Your task to perform on an android device: Open notification settings Image 0: 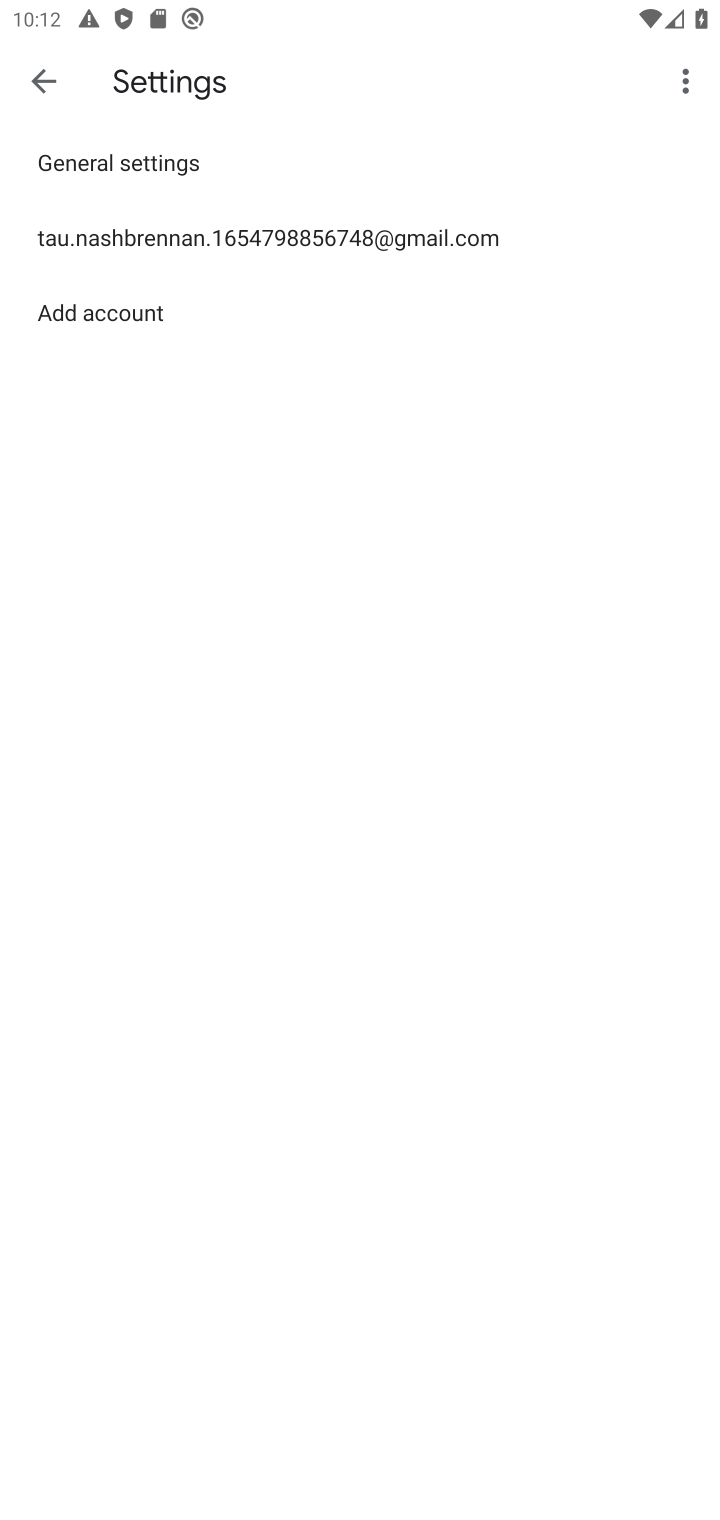
Step 0: press home button
Your task to perform on an android device: Open notification settings Image 1: 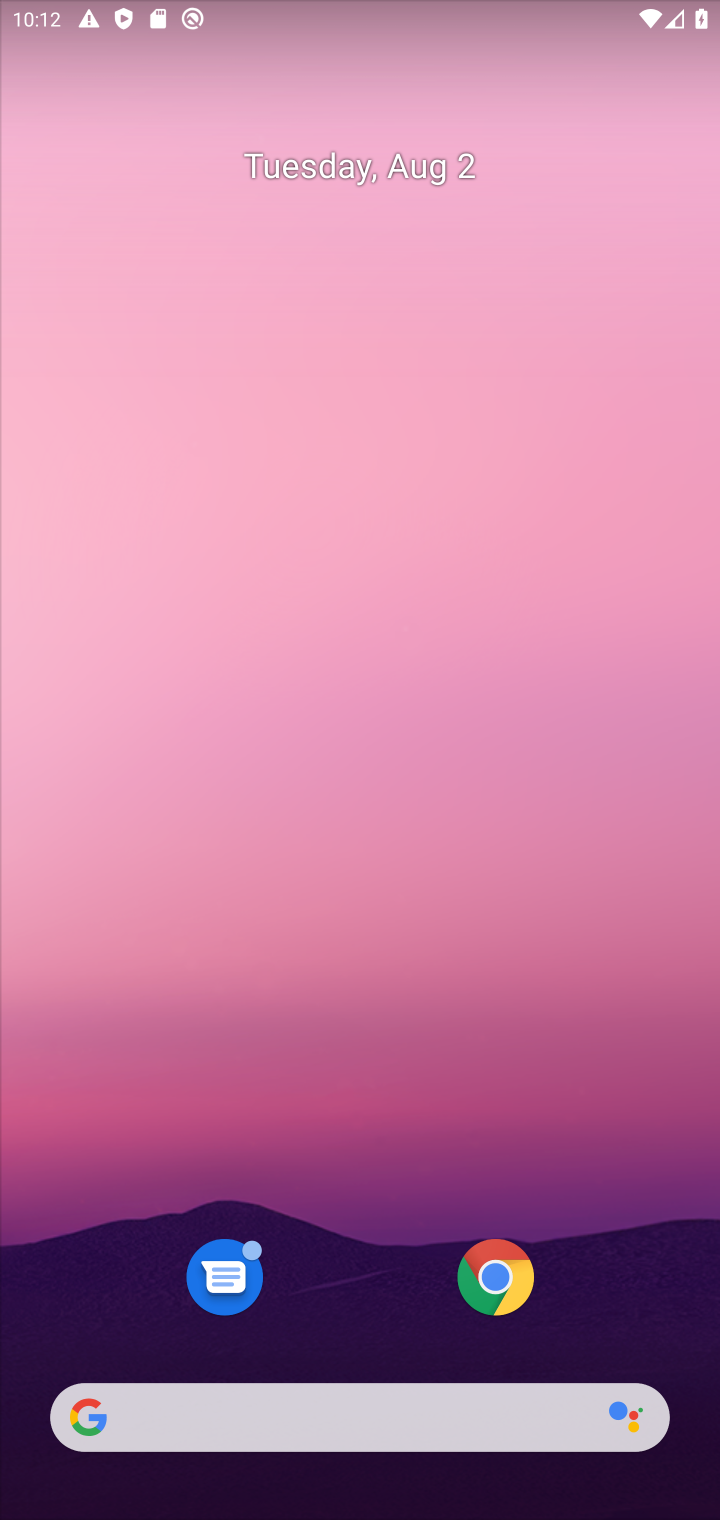
Step 1: drag from (386, 1277) to (386, 363)
Your task to perform on an android device: Open notification settings Image 2: 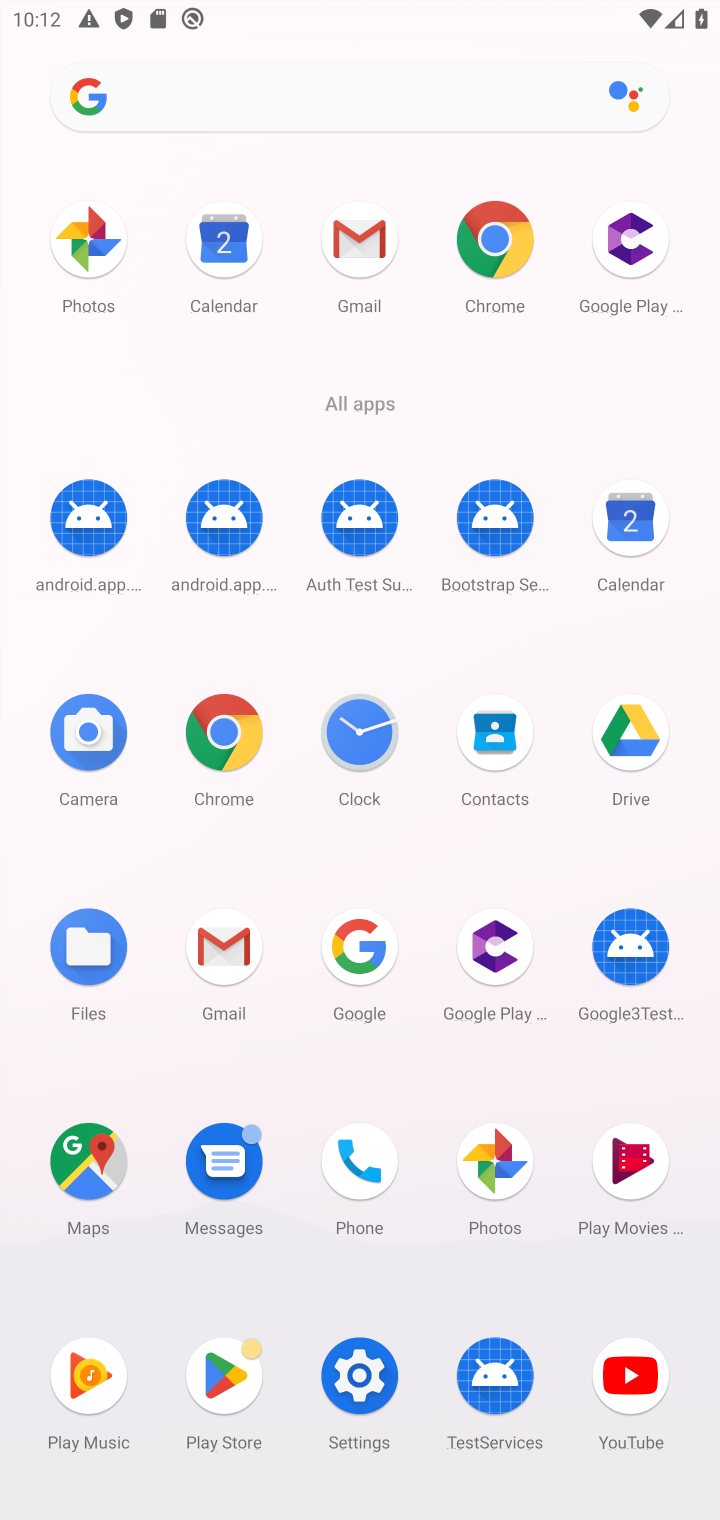
Step 2: click (339, 1395)
Your task to perform on an android device: Open notification settings Image 3: 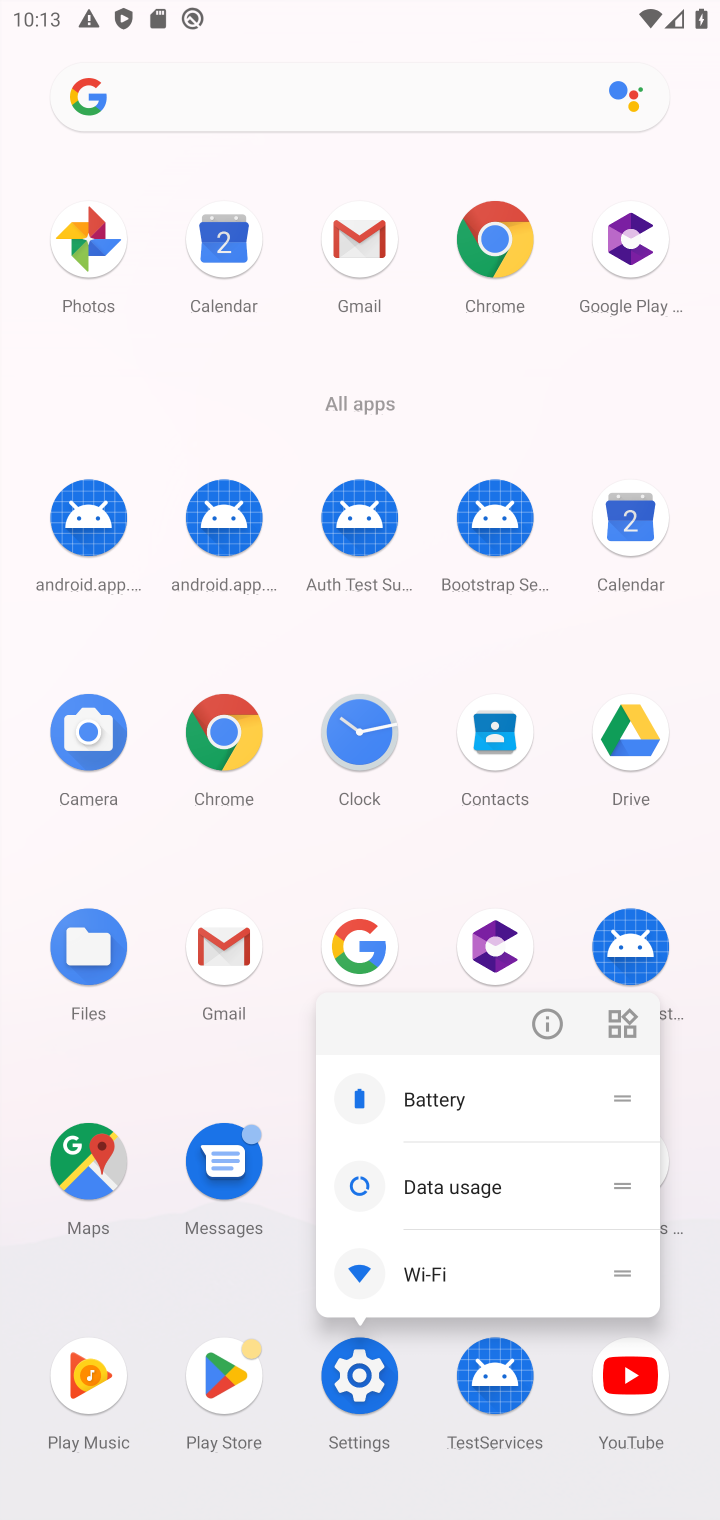
Step 3: click (368, 1387)
Your task to perform on an android device: Open notification settings Image 4: 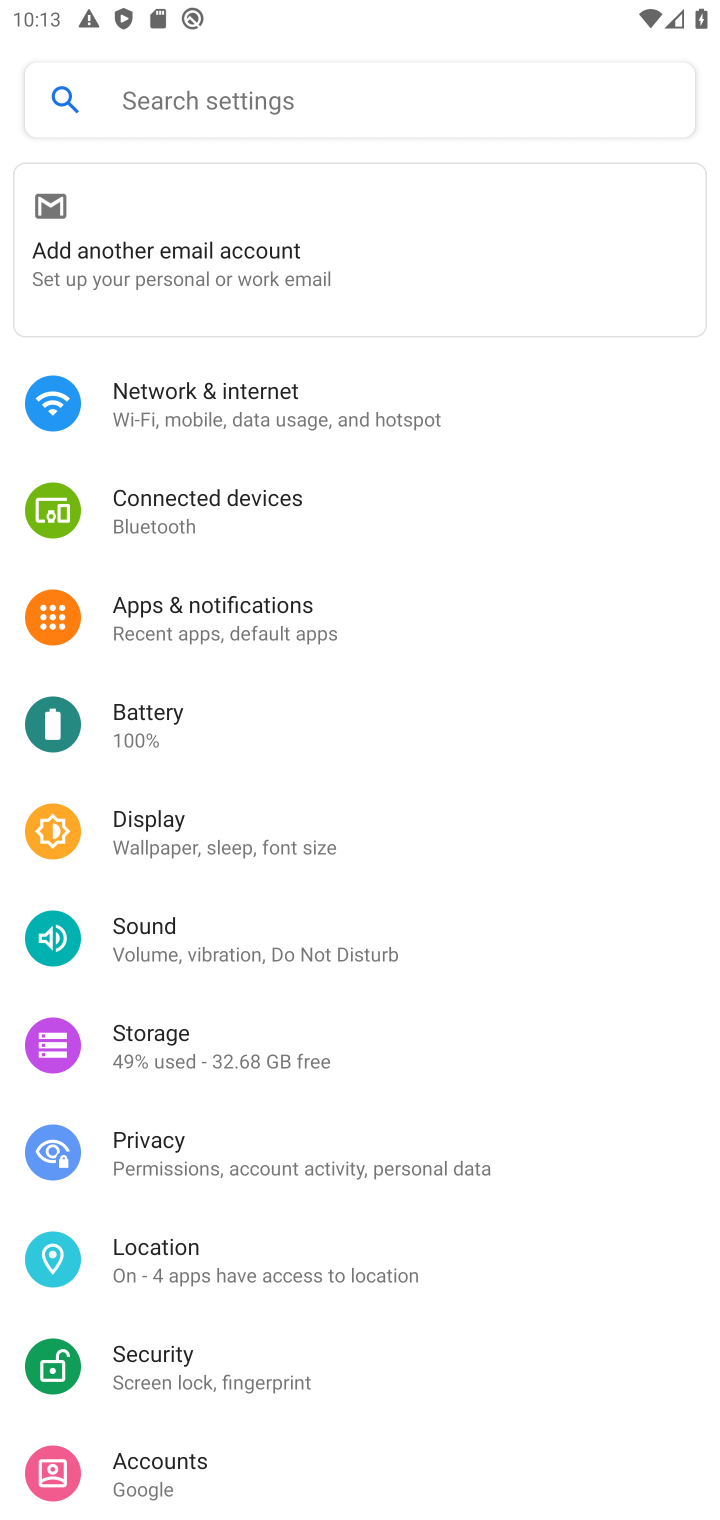
Step 4: click (194, 638)
Your task to perform on an android device: Open notification settings Image 5: 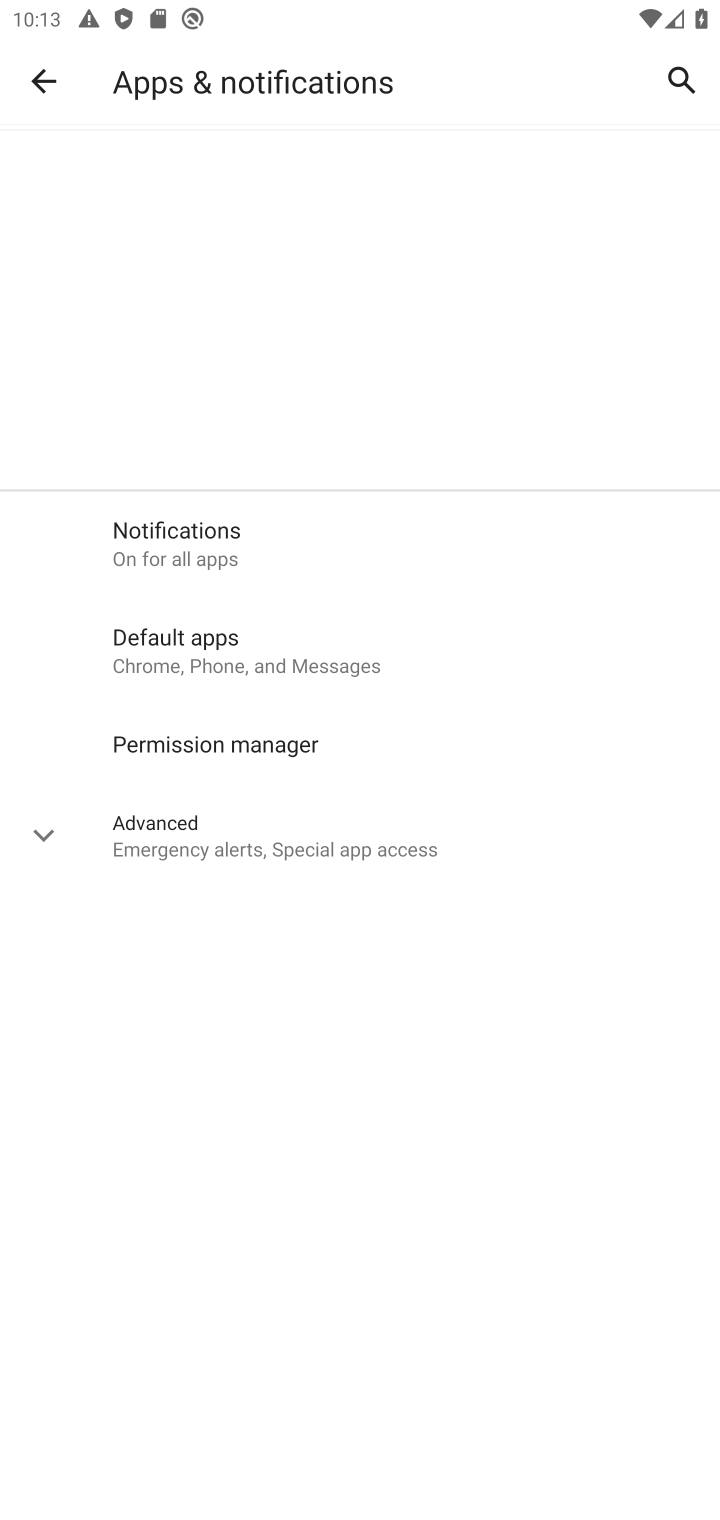
Step 5: click (169, 529)
Your task to perform on an android device: Open notification settings Image 6: 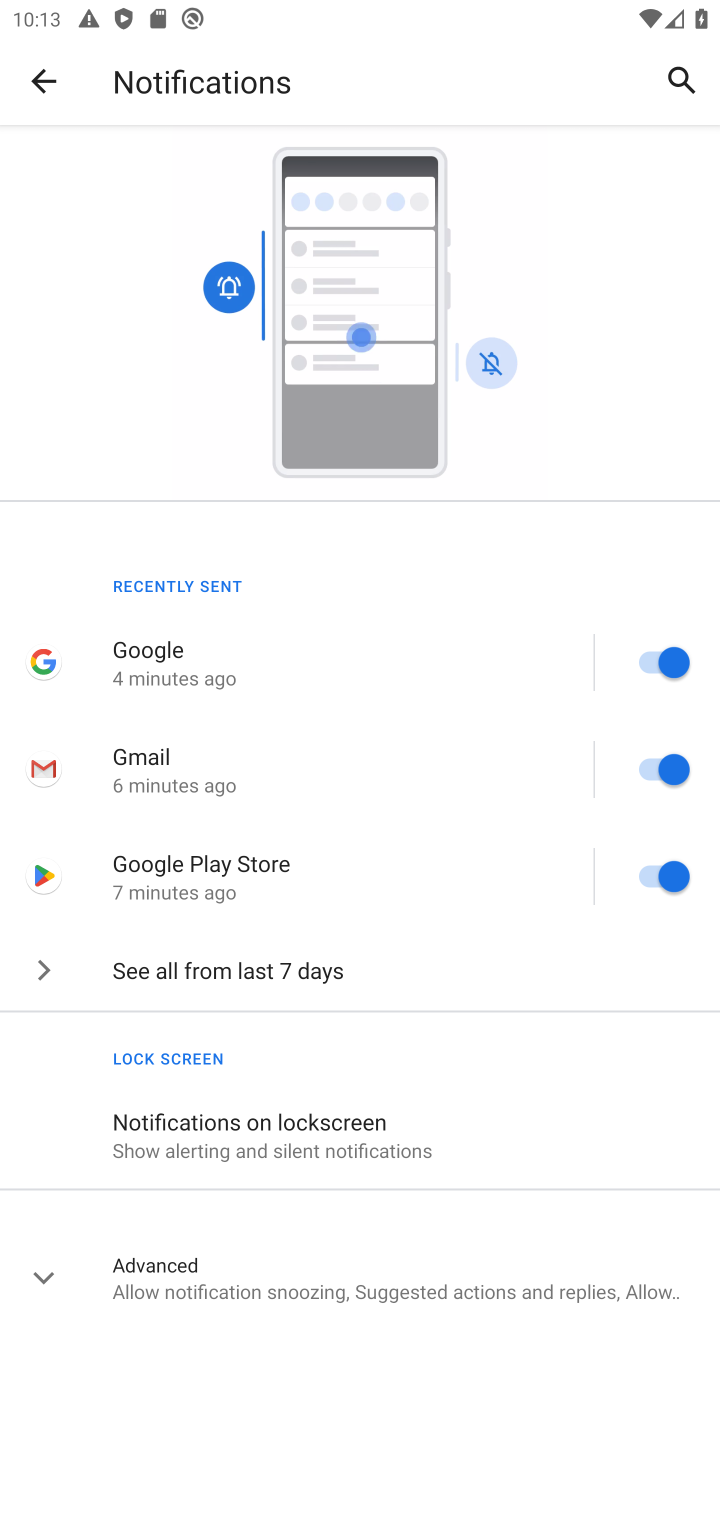
Step 6: task complete